Your task to perform on an android device: Go to Reddit.com Image 0: 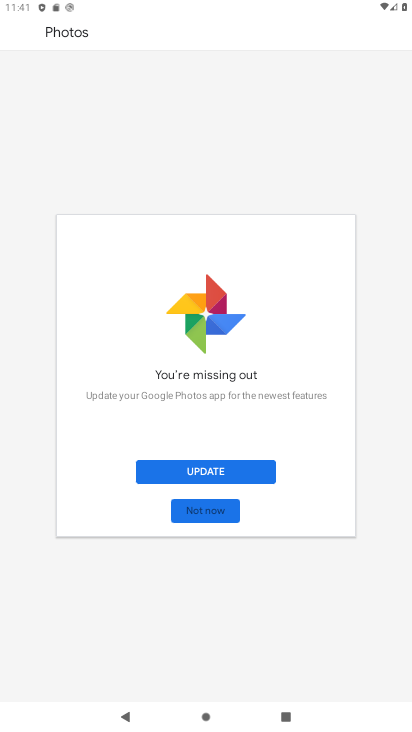
Step 0: press home button
Your task to perform on an android device: Go to Reddit.com Image 1: 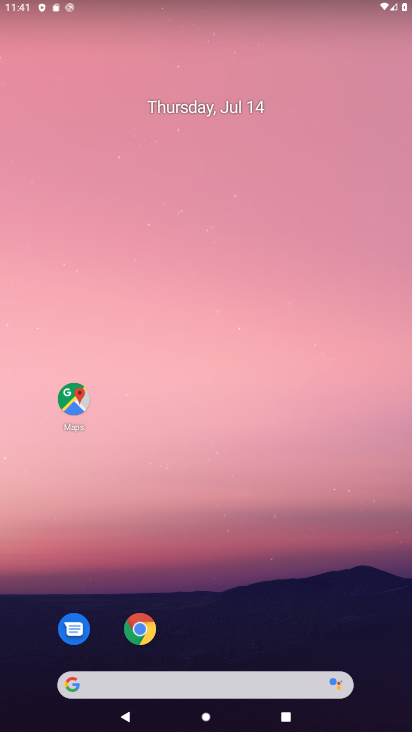
Step 1: drag from (352, 609) to (210, 143)
Your task to perform on an android device: Go to Reddit.com Image 2: 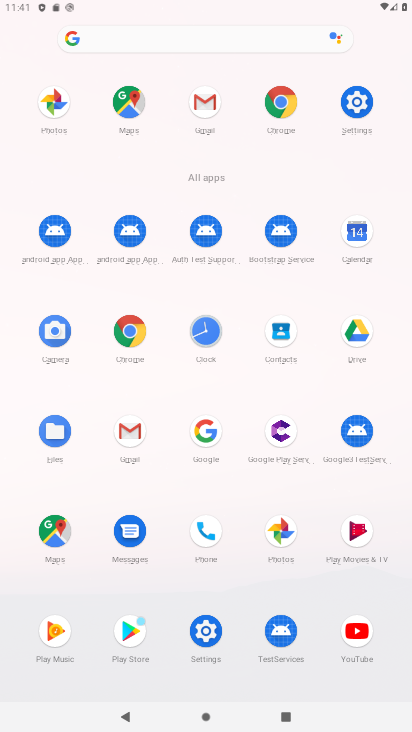
Step 2: click (129, 330)
Your task to perform on an android device: Go to Reddit.com Image 3: 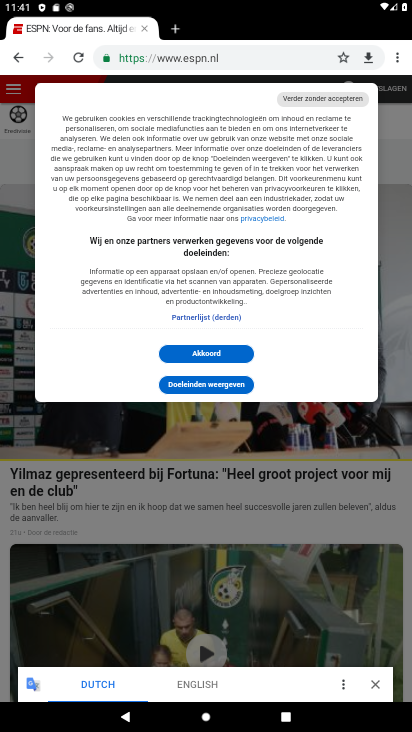
Step 3: click (203, 58)
Your task to perform on an android device: Go to Reddit.com Image 4: 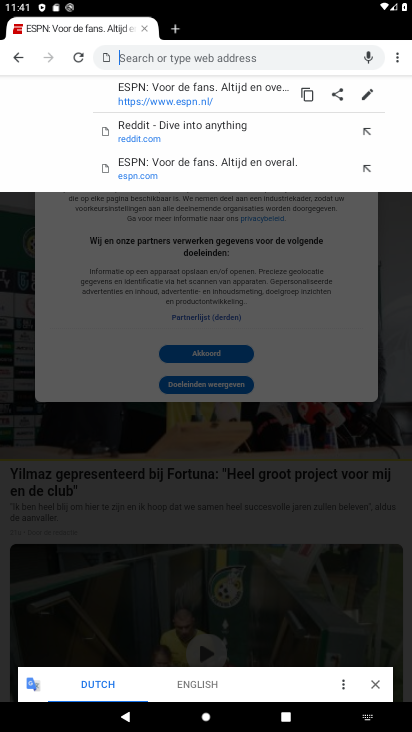
Step 4: type "reddit.com"
Your task to perform on an android device: Go to Reddit.com Image 5: 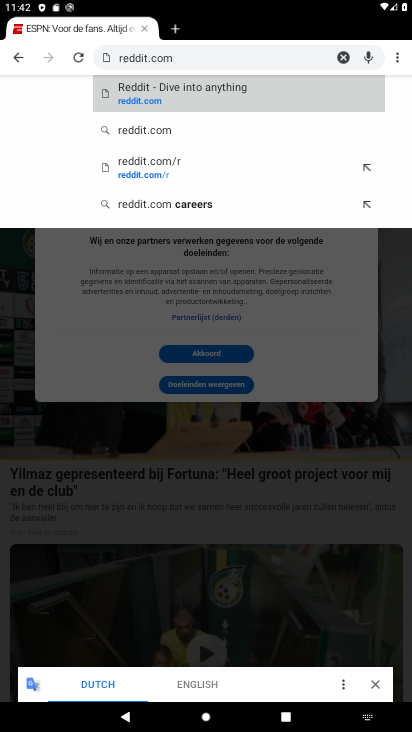
Step 5: click (139, 101)
Your task to perform on an android device: Go to Reddit.com Image 6: 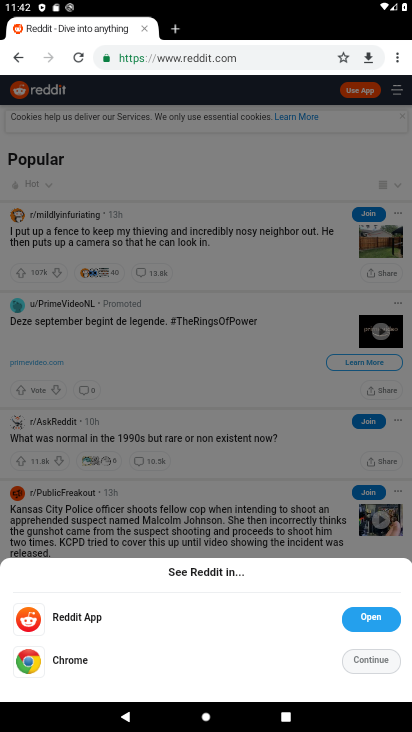
Step 6: task complete